Your task to perform on an android device: check out phone information Image 0: 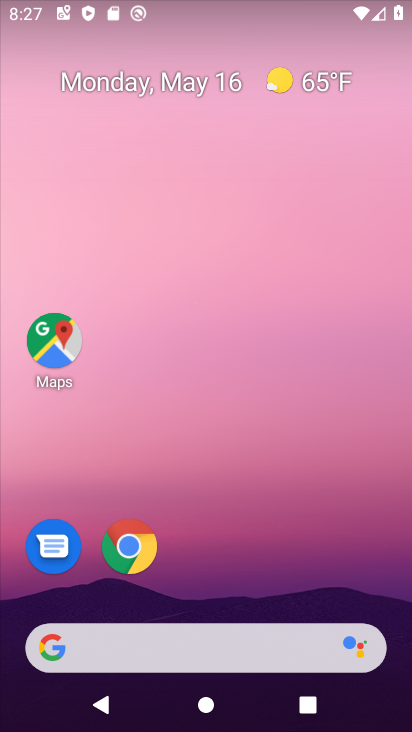
Step 0: drag from (281, 590) to (363, 10)
Your task to perform on an android device: check out phone information Image 1: 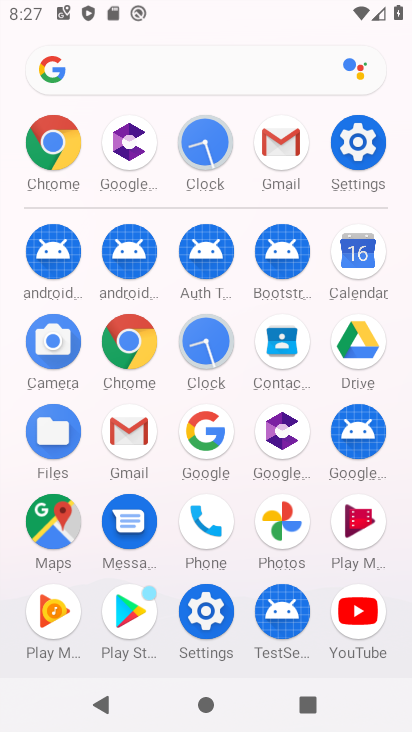
Step 1: click (357, 134)
Your task to perform on an android device: check out phone information Image 2: 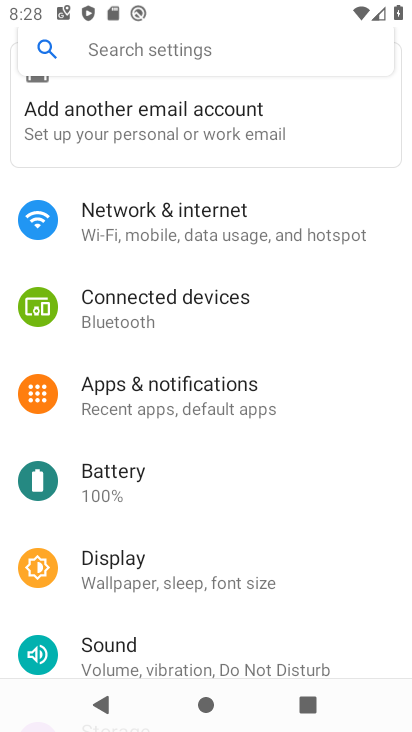
Step 2: task complete